Your task to perform on an android device: Open Chrome and go to the settings page Image 0: 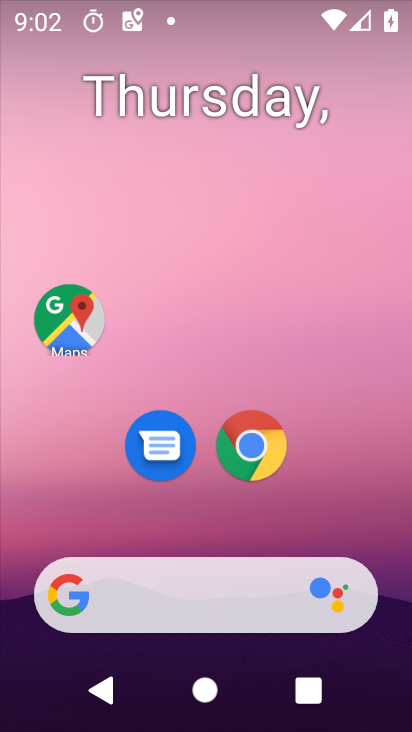
Step 0: click (239, 444)
Your task to perform on an android device: Open Chrome and go to the settings page Image 1: 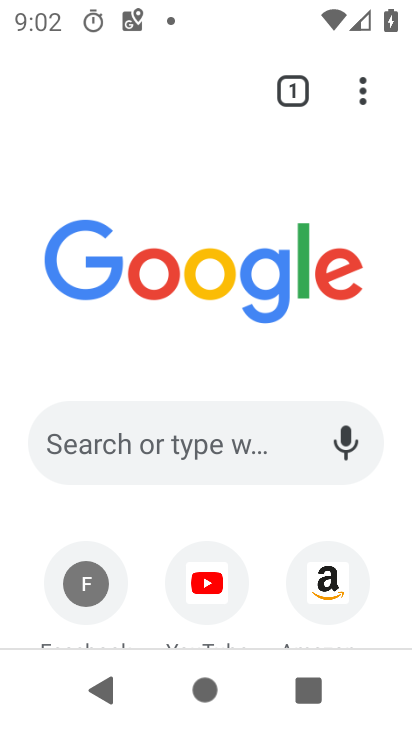
Step 1: click (368, 93)
Your task to perform on an android device: Open Chrome and go to the settings page Image 2: 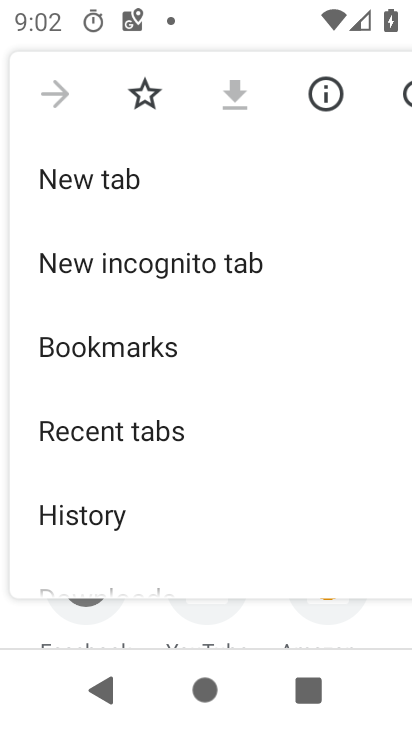
Step 2: drag from (283, 492) to (223, 6)
Your task to perform on an android device: Open Chrome and go to the settings page Image 3: 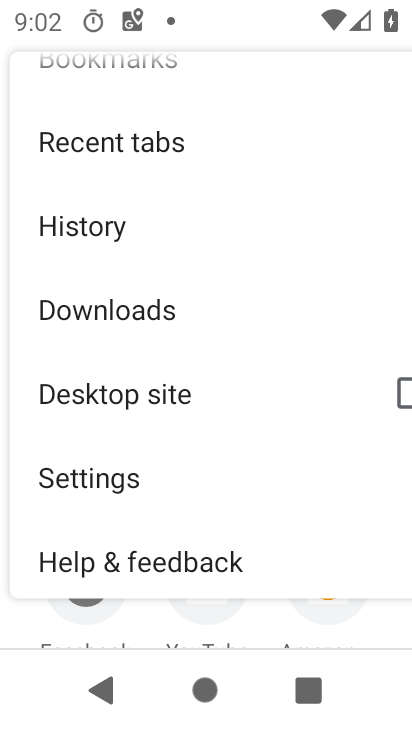
Step 3: click (104, 483)
Your task to perform on an android device: Open Chrome and go to the settings page Image 4: 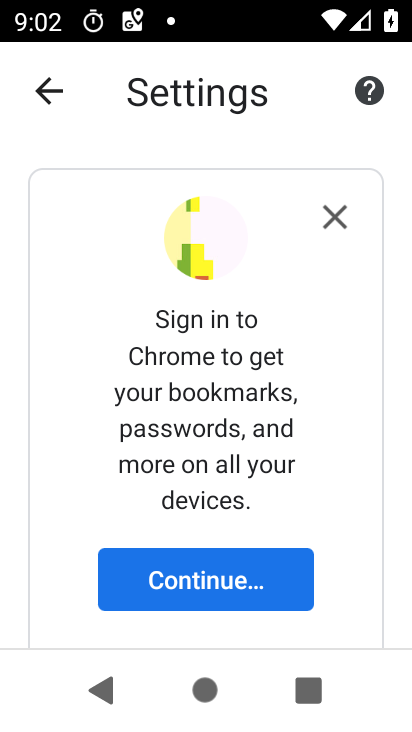
Step 4: task complete